Your task to perform on an android device: turn off translation in the chrome app Image 0: 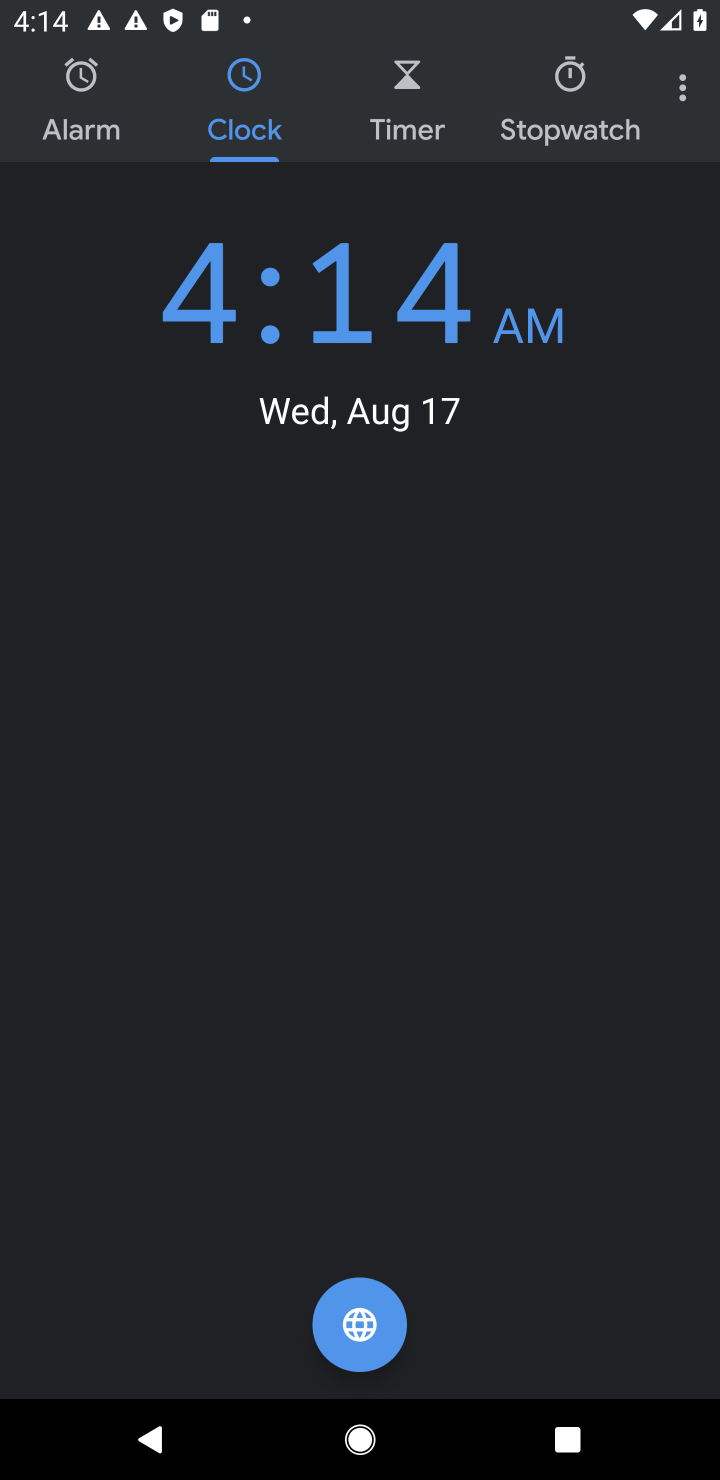
Step 0: press home button
Your task to perform on an android device: turn off translation in the chrome app Image 1: 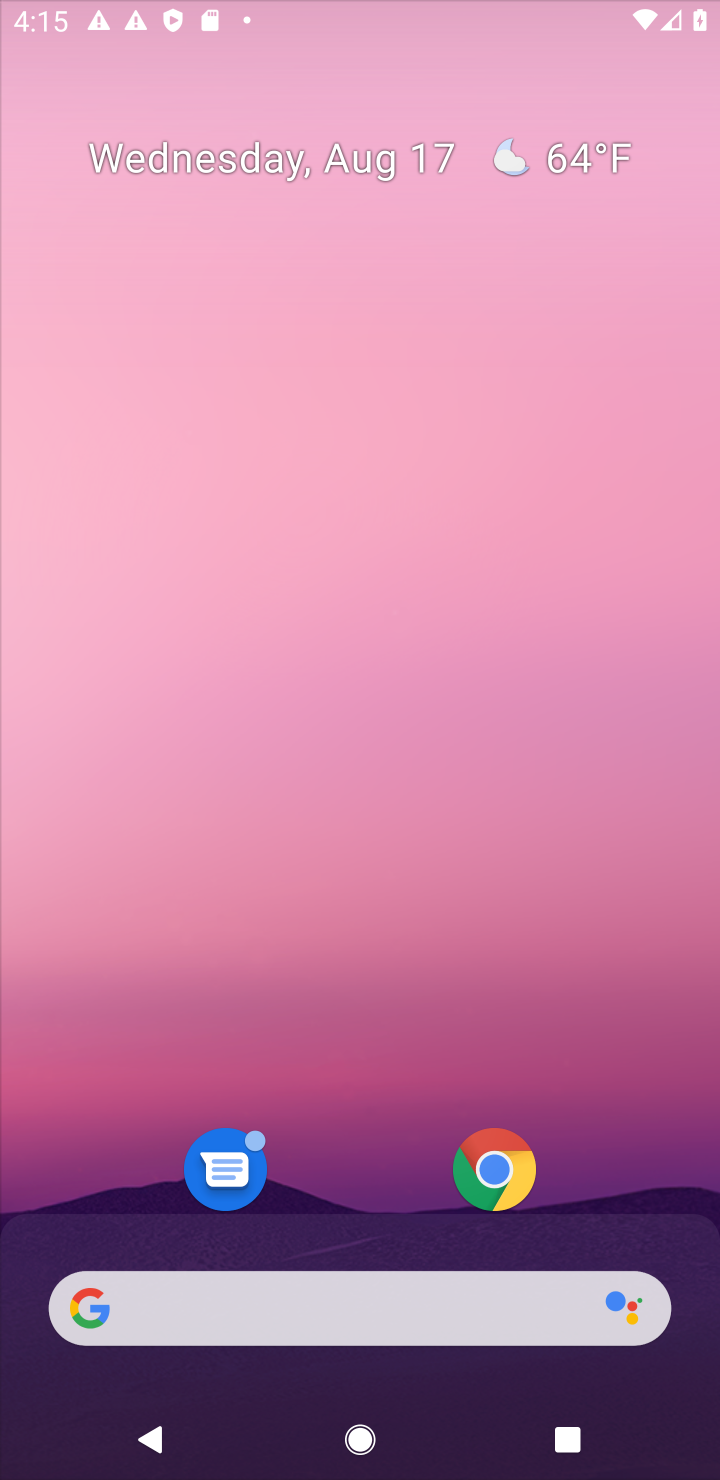
Step 1: drag from (275, 618) to (409, 16)
Your task to perform on an android device: turn off translation in the chrome app Image 2: 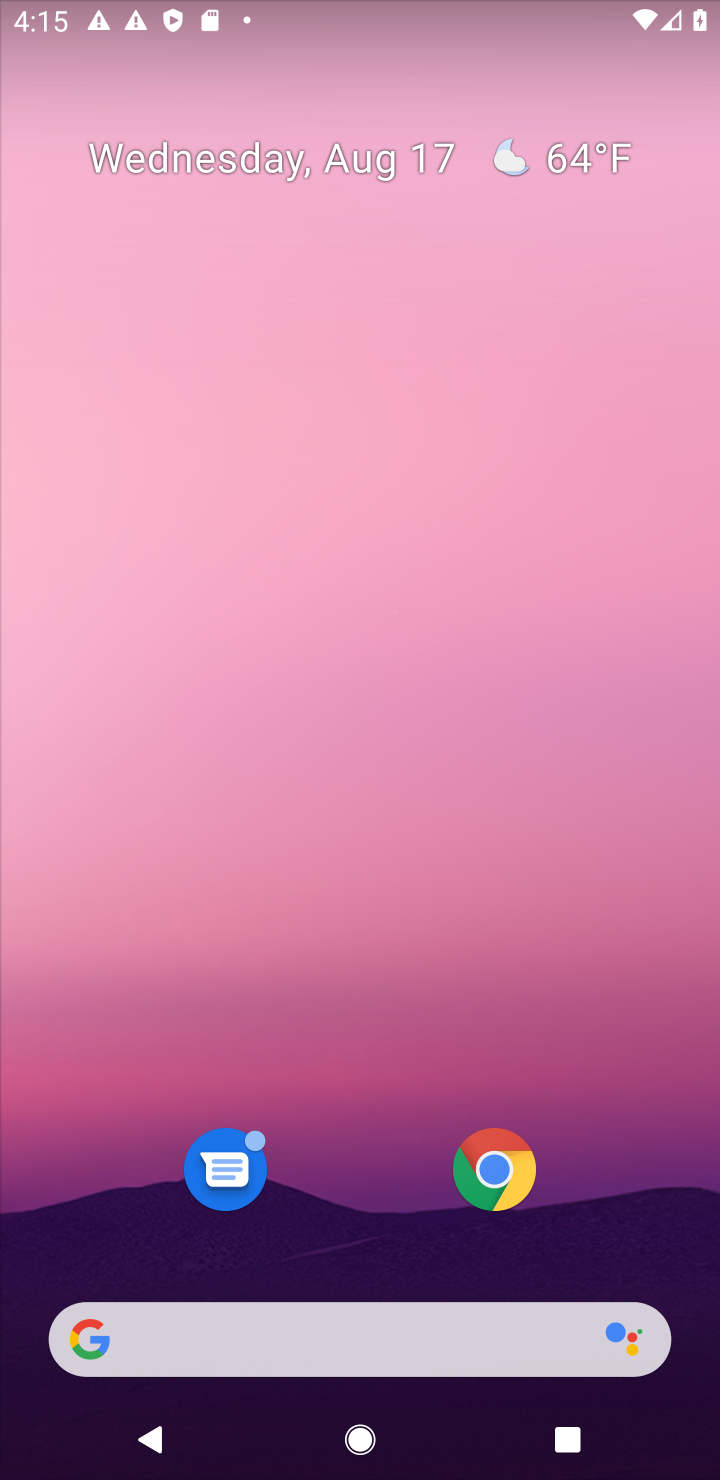
Step 2: drag from (295, 1201) to (435, 54)
Your task to perform on an android device: turn off translation in the chrome app Image 3: 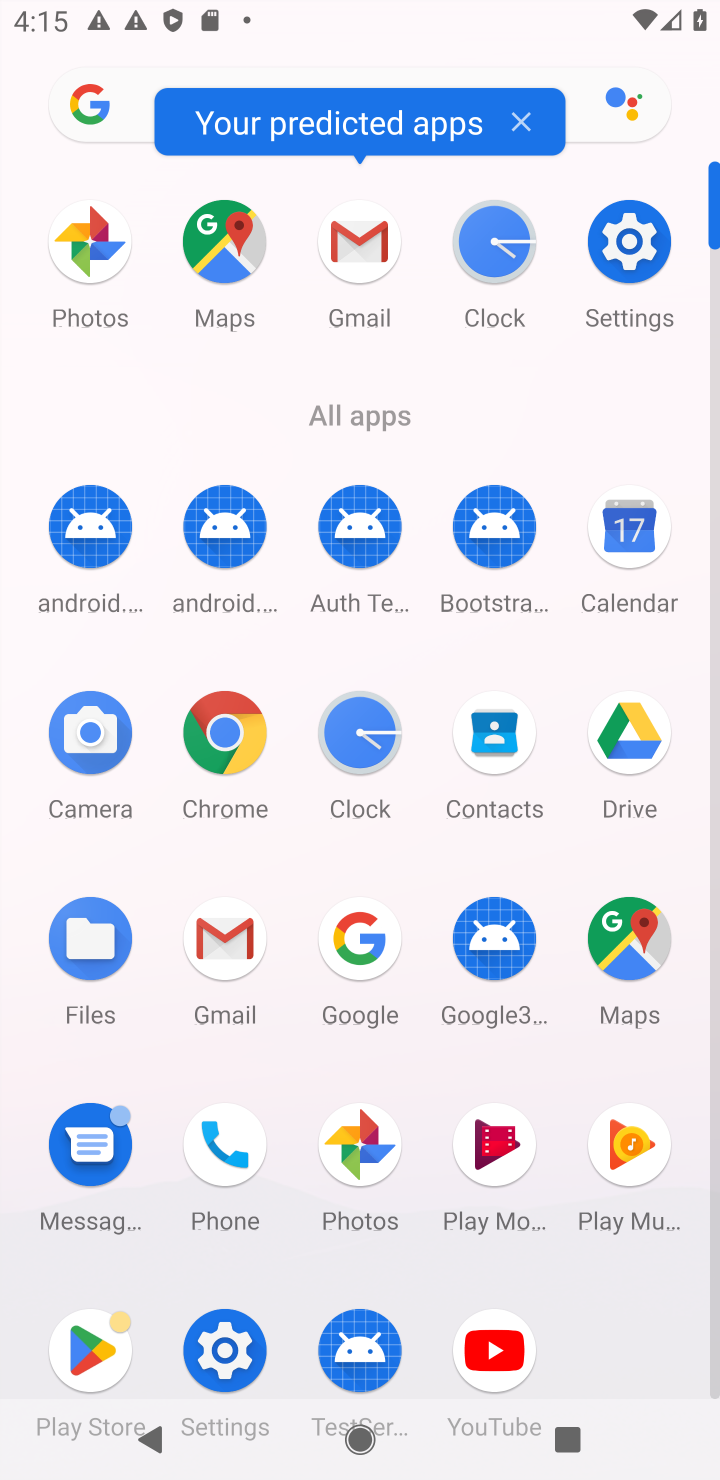
Step 3: click (216, 738)
Your task to perform on an android device: turn off translation in the chrome app Image 4: 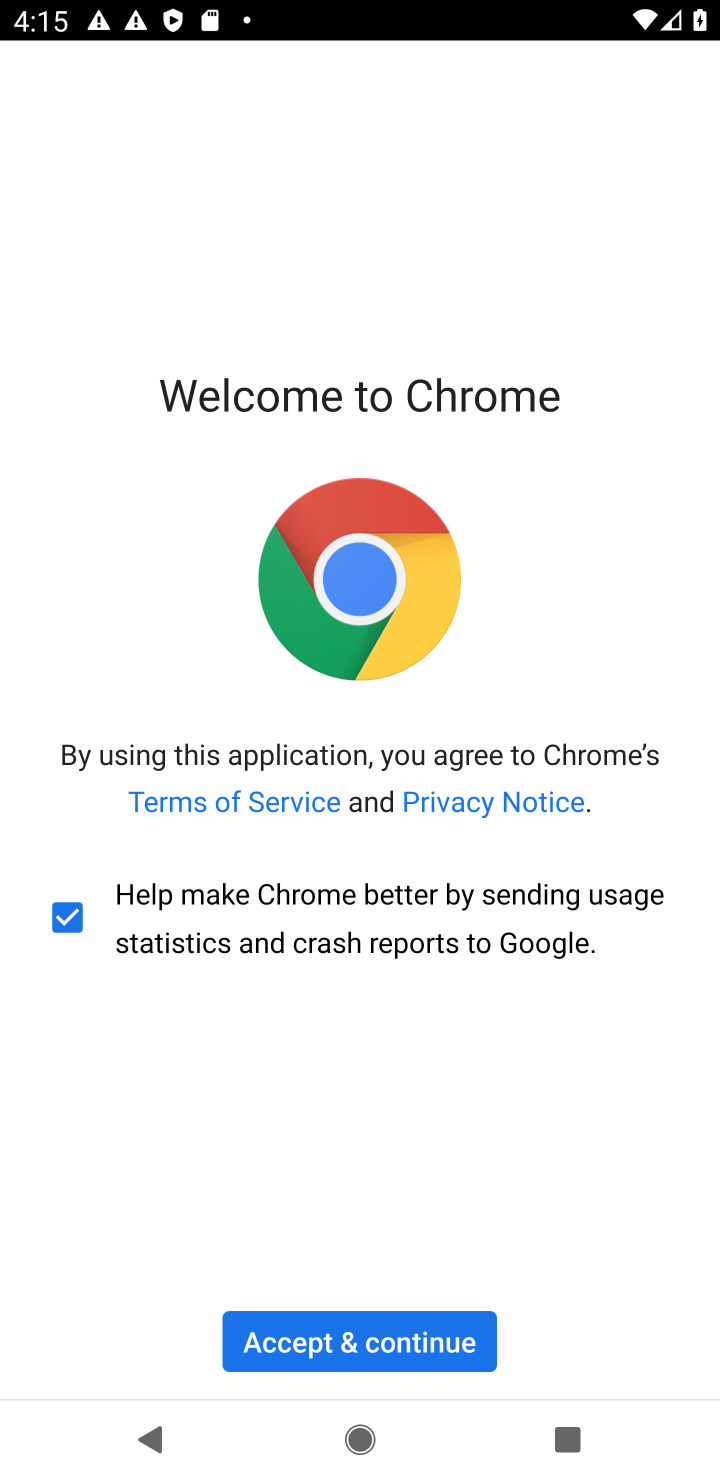
Step 4: click (381, 1362)
Your task to perform on an android device: turn off translation in the chrome app Image 5: 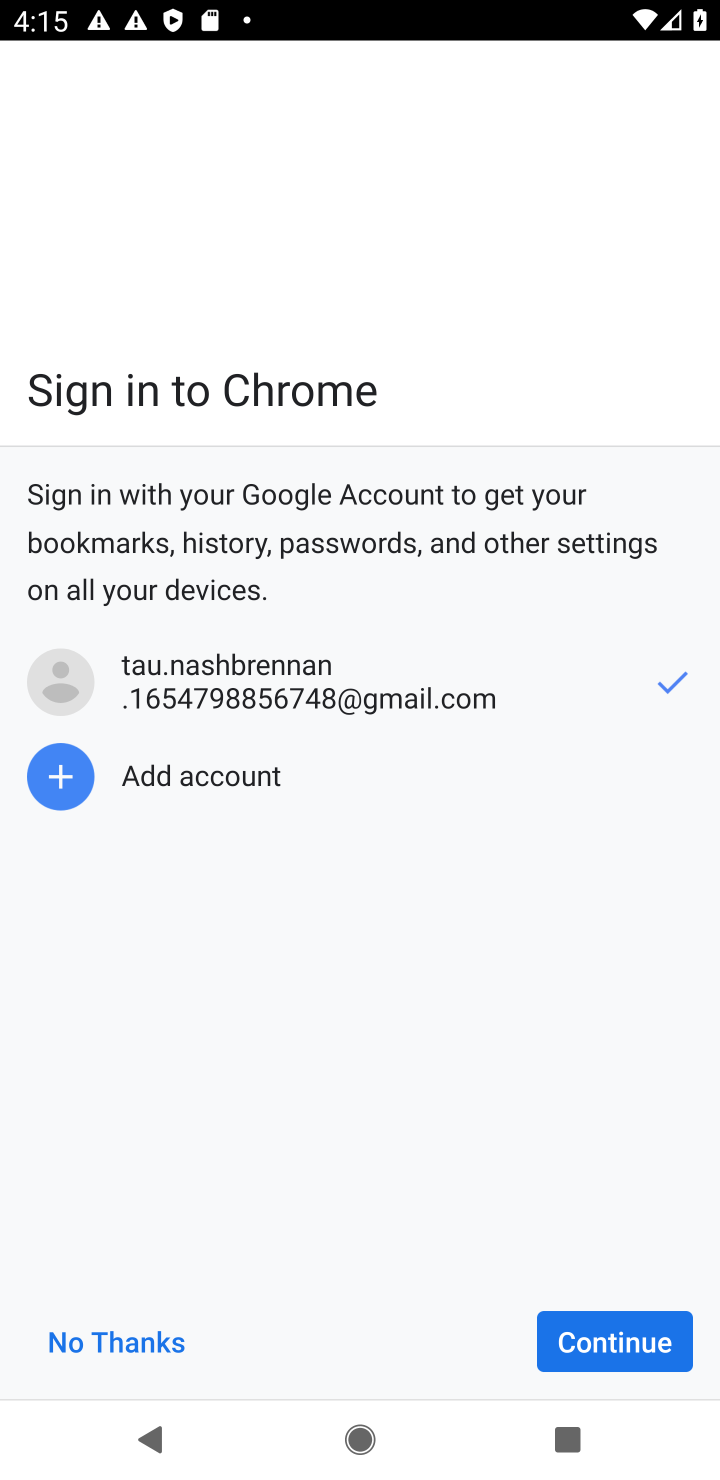
Step 5: click (46, 1350)
Your task to perform on an android device: turn off translation in the chrome app Image 6: 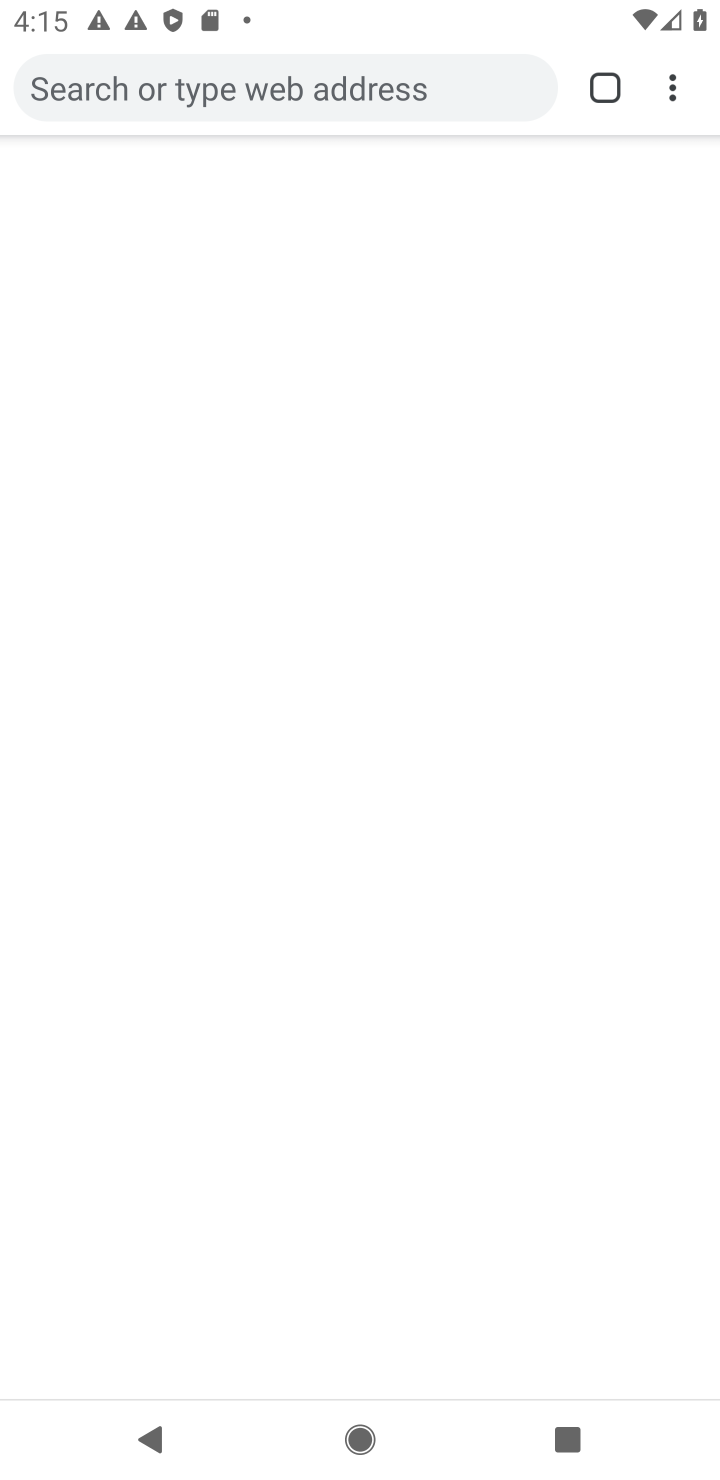
Step 6: drag from (669, 97) to (323, 747)
Your task to perform on an android device: turn off translation in the chrome app Image 7: 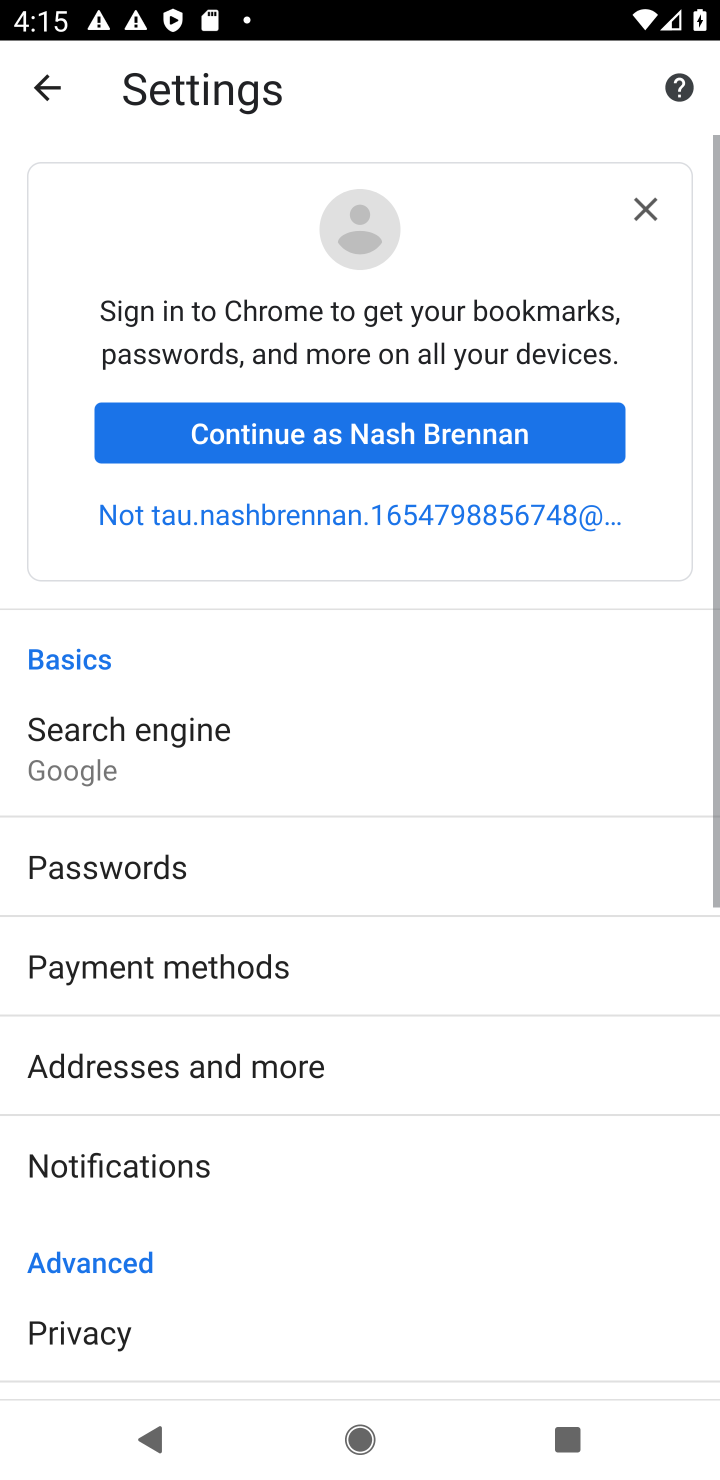
Step 7: drag from (280, 1182) to (502, 331)
Your task to perform on an android device: turn off translation in the chrome app Image 8: 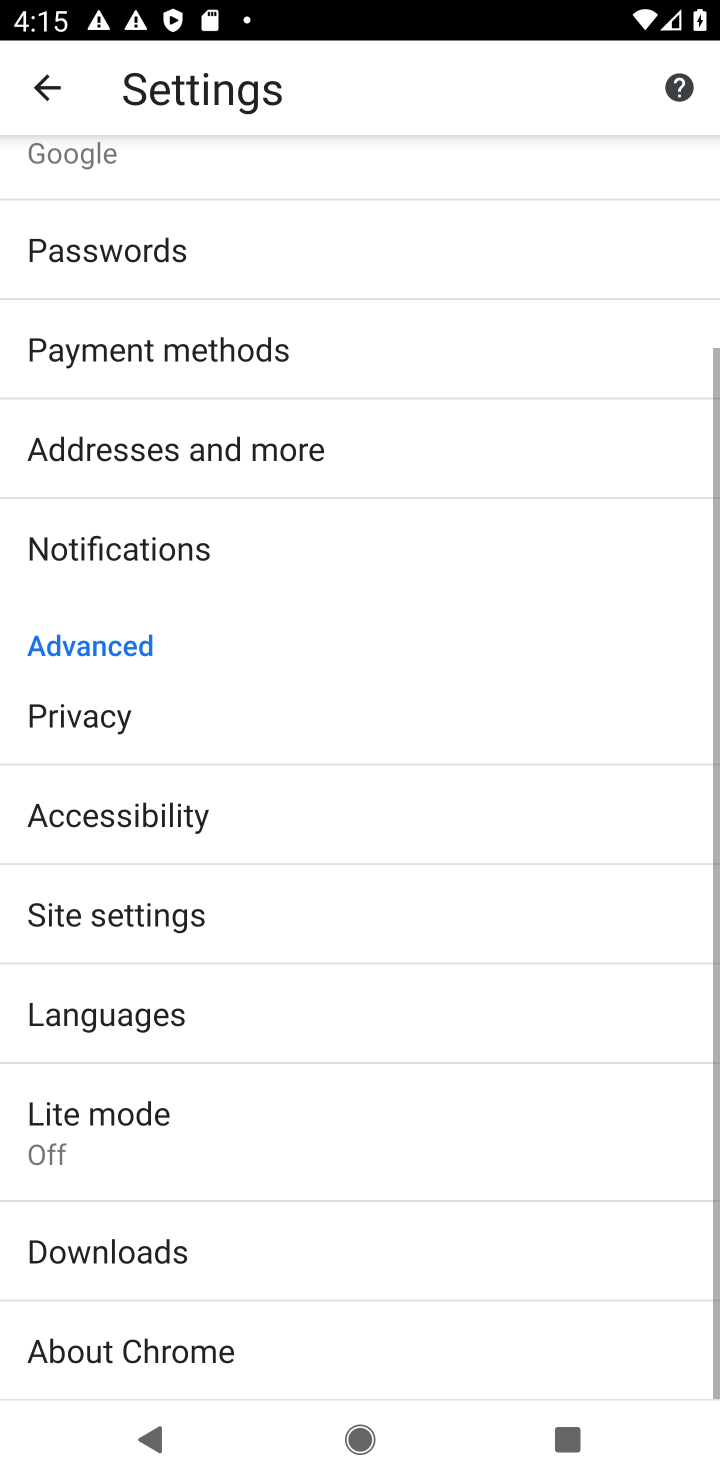
Step 8: click (91, 1030)
Your task to perform on an android device: turn off translation in the chrome app Image 9: 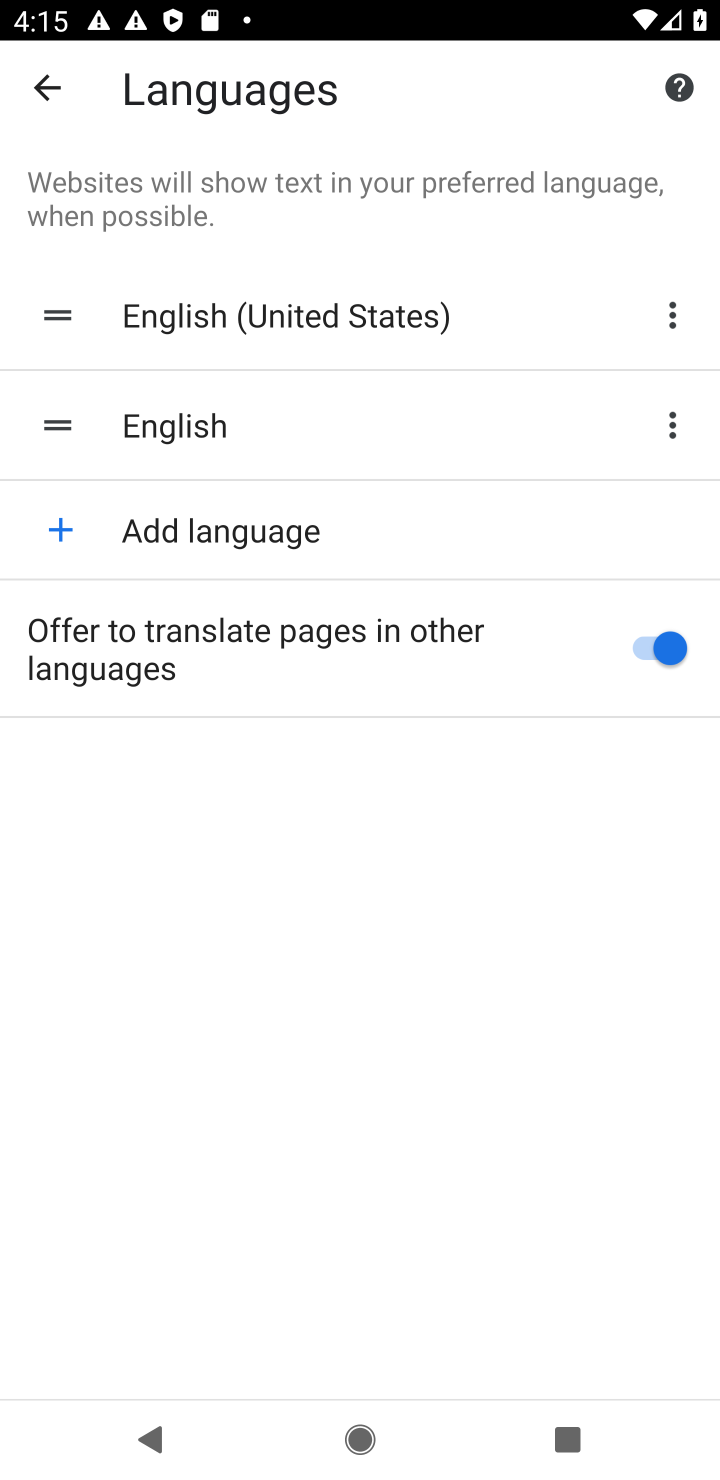
Step 9: click (621, 649)
Your task to perform on an android device: turn off translation in the chrome app Image 10: 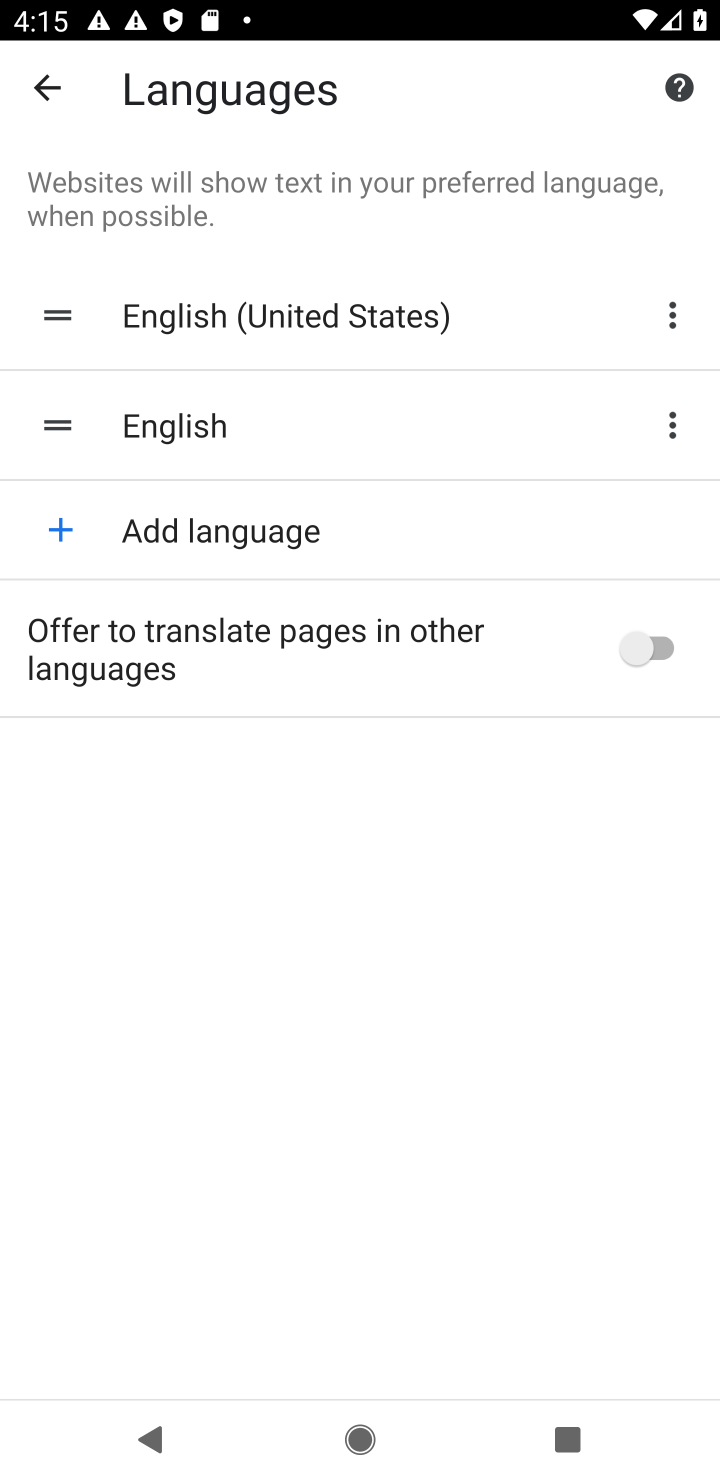
Step 10: task complete